Your task to perform on an android device: search for starred emails in the gmail app Image 0: 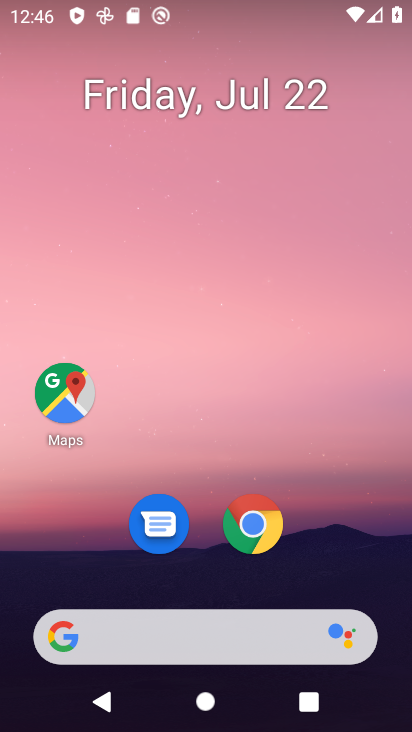
Step 0: drag from (247, 549) to (361, 40)
Your task to perform on an android device: search for starred emails in the gmail app Image 1: 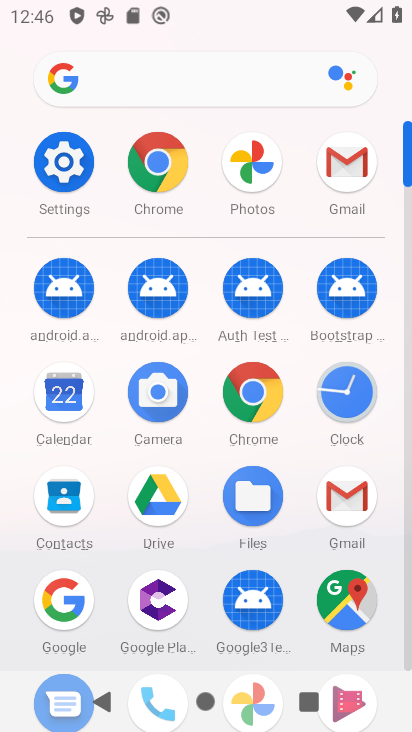
Step 1: click (340, 165)
Your task to perform on an android device: search for starred emails in the gmail app Image 2: 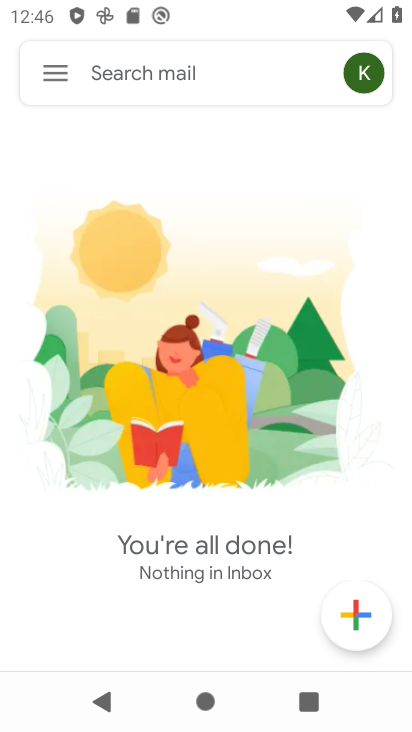
Step 2: click (51, 73)
Your task to perform on an android device: search for starred emails in the gmail app Image 3: 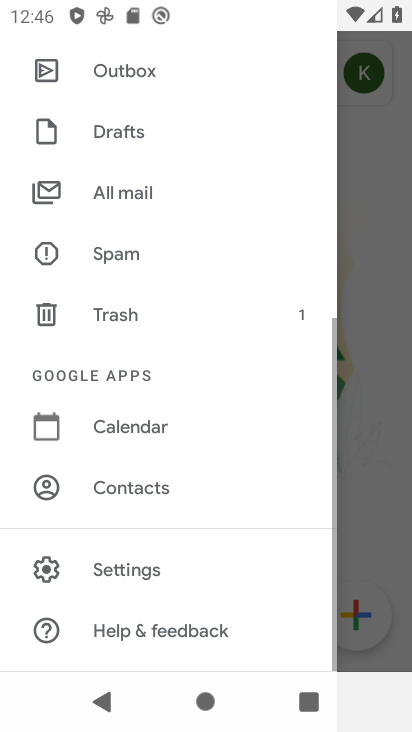
Step 3: drag from (256, 148) to (135, 587)
Your task to perform on an android device: search for starred emails in the gmail app Image 4: 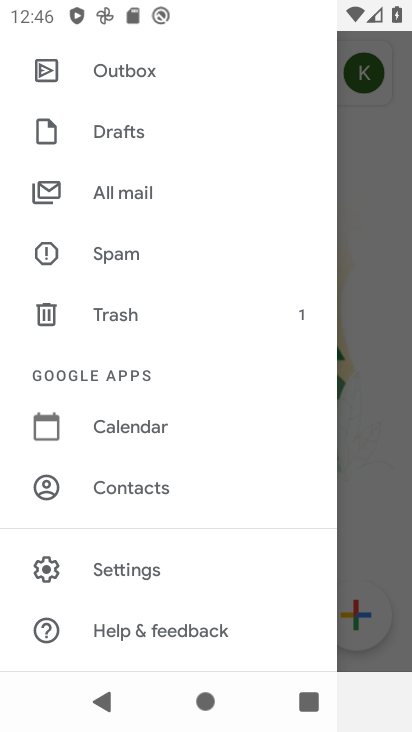
Step 4: drag from (135, 127) to (69, 592)
Your task to perform on an android device: search for starred emails in the gmail app Image 5: 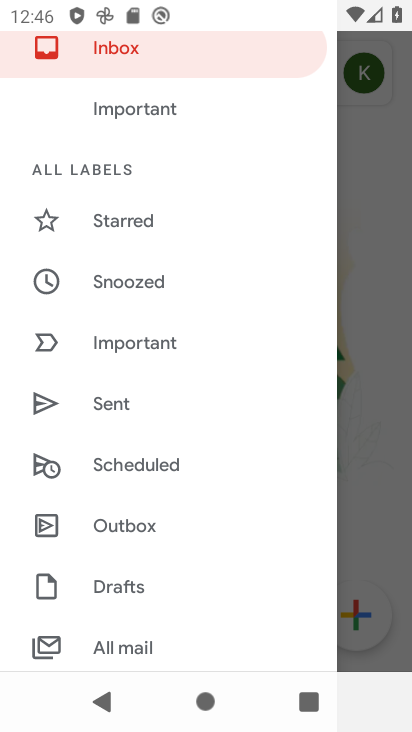
Step 5: click (127, 223)
Your task to perform on an android device: search for starred emails in the gmail app Image 6: 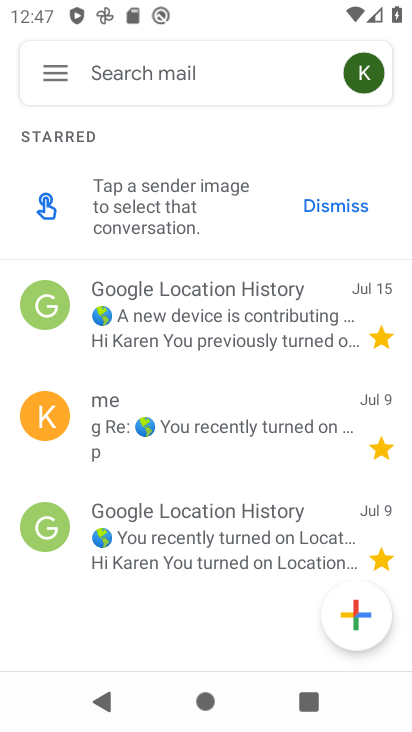
Step 6: task complete